Your task to perform on an android device: empty trash in google photos Image 0: 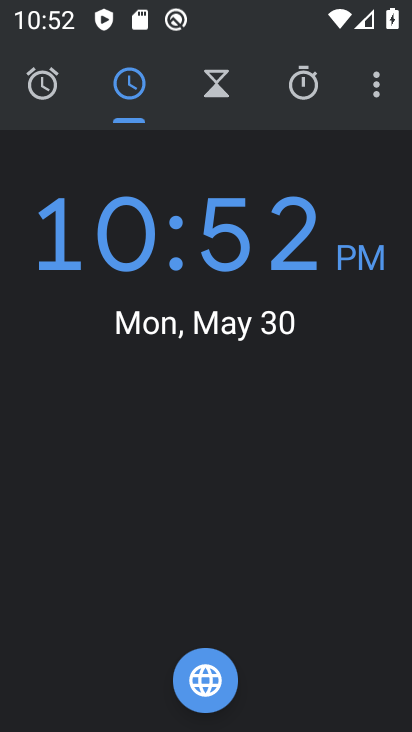
Step 0: press home button
Your task to perform on an android device: empty trash in google photos Image 1: 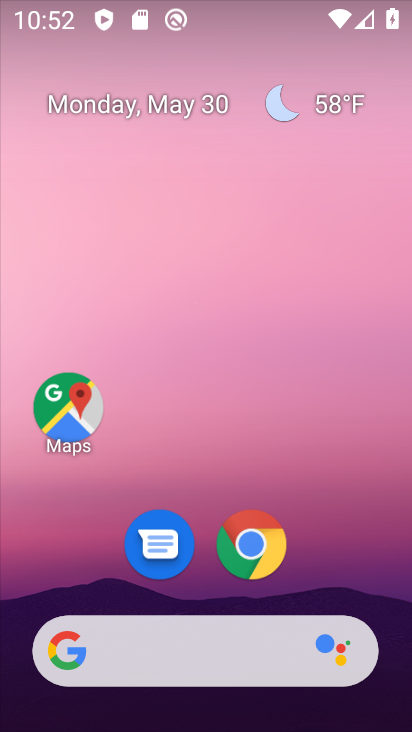
Step 1: drag from (379, 563) to (320, 44)
Your task to perform on an android device: empty trash in google photos Image 2: 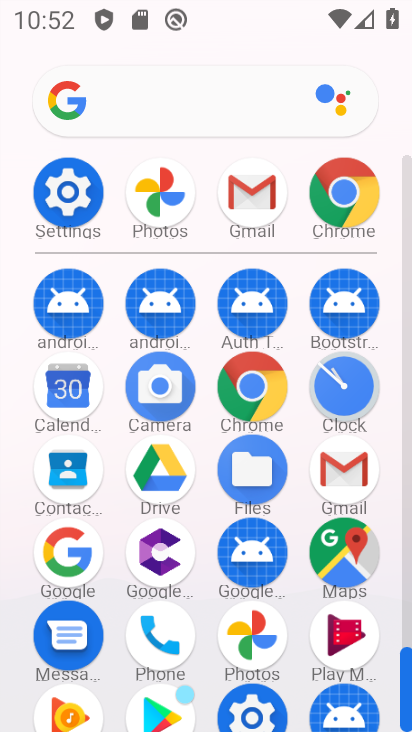
Step 2: click (263, 633)
Your task to perform on an android device: empty trash in google photos Image 3: 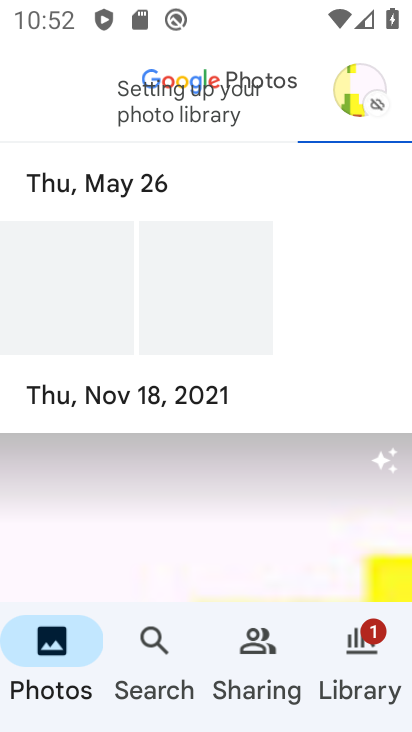
Step 3: task complete